Your task to perform on an android device: What's on my calendar tomorrow? Image 0: 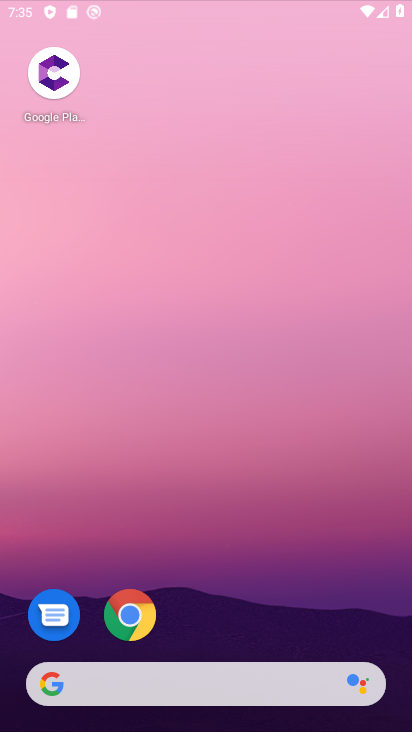
Step 0: press home button
Your task to perform on an android device: What's on my calendar tomorrow? Image 1: 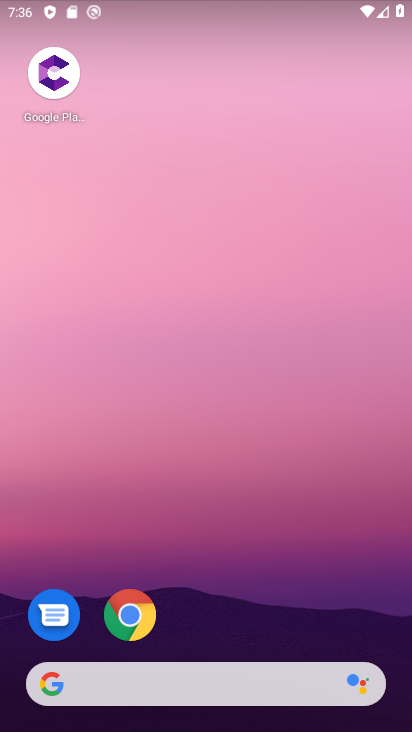
Step 1: click (293, 249)
Your task to perform on an android device: What's on my calendar tomorrow? Image 2: 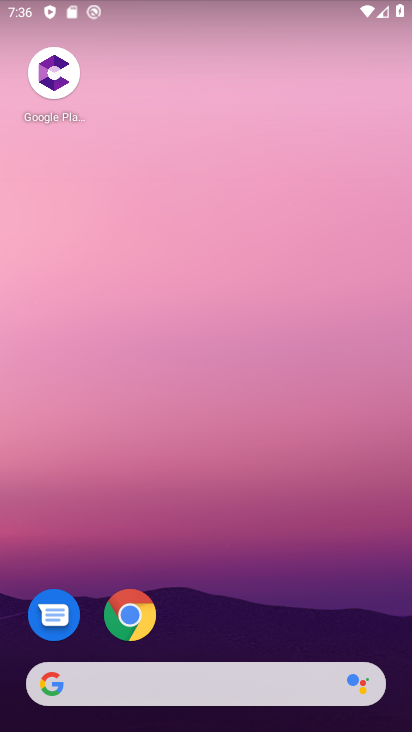
Step 2: drag from (186, 694) to (300, 111)
Your task to perform on an android device: What's on my calendar tomorrow? Image 3: 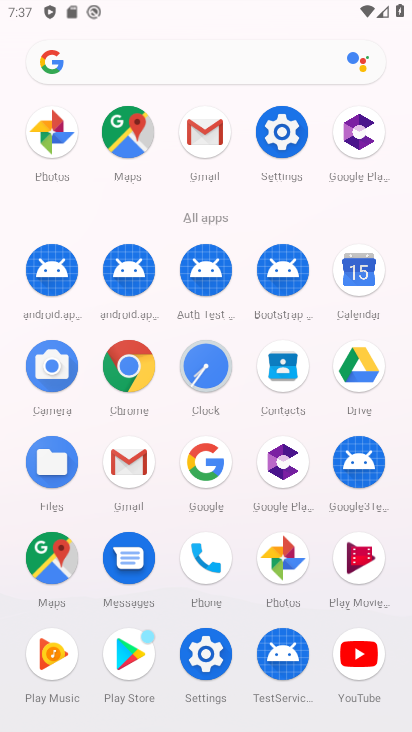
Step 3: click (340, 263)
Your task to perform on an android device: What's on my calendar tomorrow? Image 4: 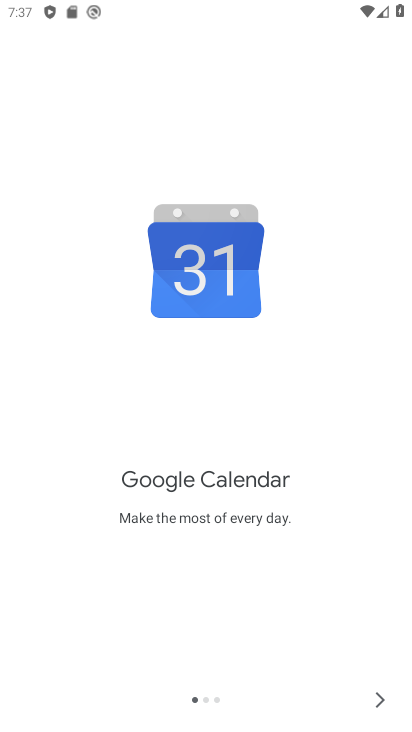
Step 4: click (365, 703)
Your task to perform on an android device: What's on my calendar tomorrow? Image 5: 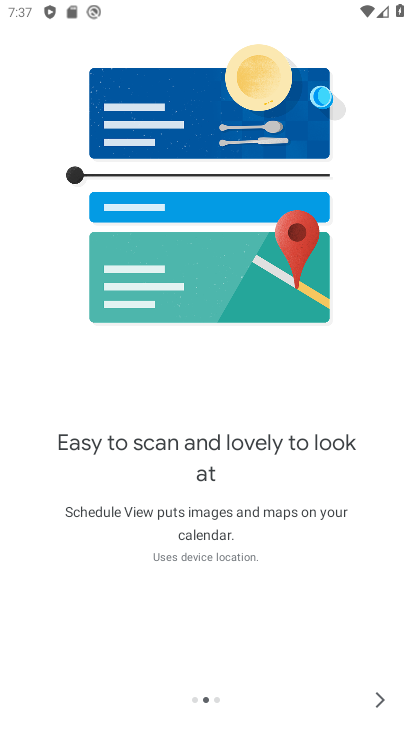
Step 5: click (374, 705)
Your task to perform on an android device: What's on my calendar tomorrow? Image 6: 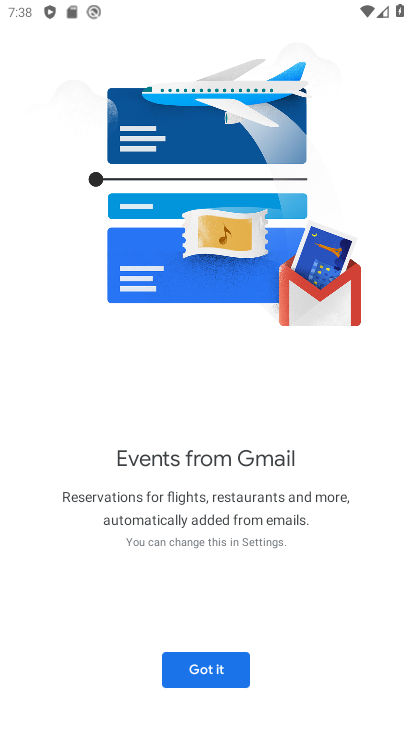
Step 6: click (189, 675)
Your task to perform on an android device: What's on my calendar tomorrow? Image 7: 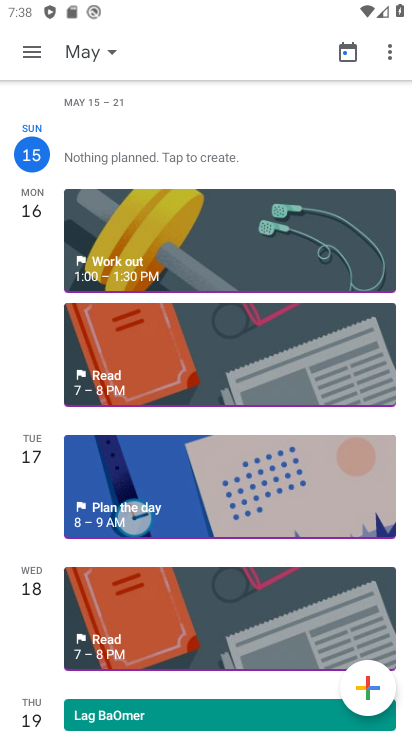
Step 7: task complete